Your task to perform on an android device: check storage Image 0: 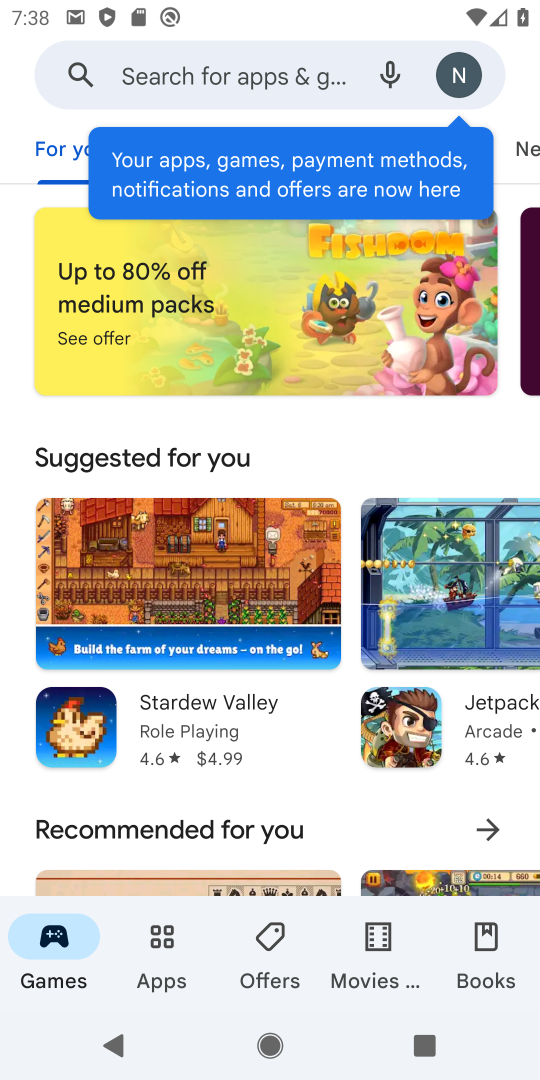
Step 0: press home button
Your task to perform on an android device: check storage Image 1: 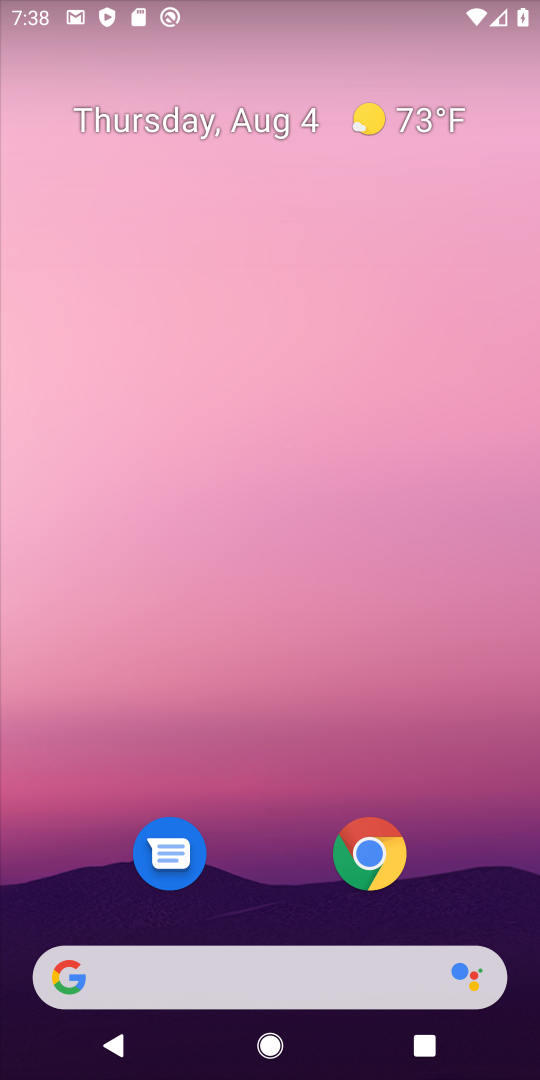
Step 1: drag from (310, 882) to (310, 497)
Your task to perform on an android device: check storage Image 2: 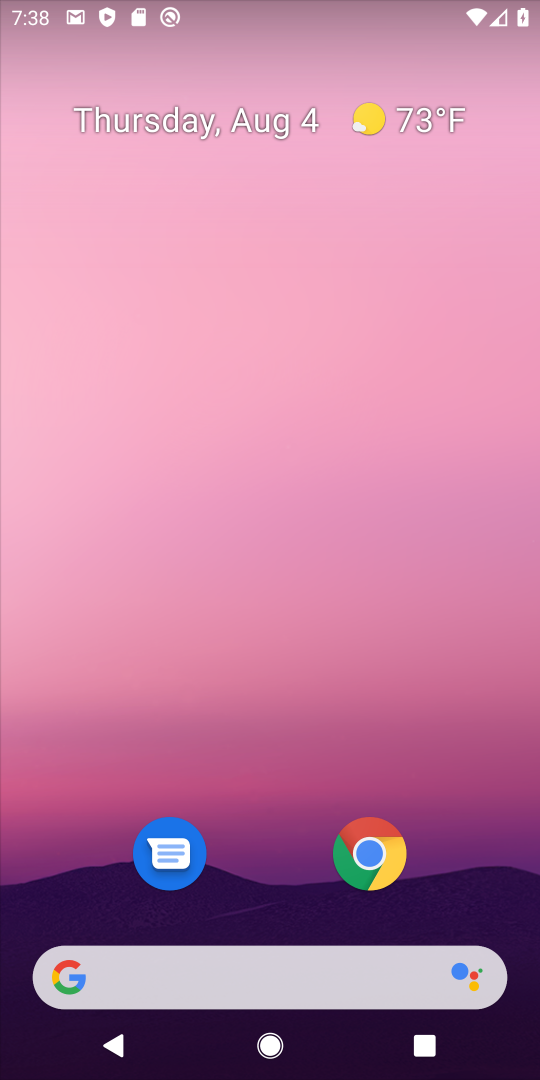
Step 2: drag from (252, 824) to (252, 166)
Your task to perform on an android device: check storage Image 3: 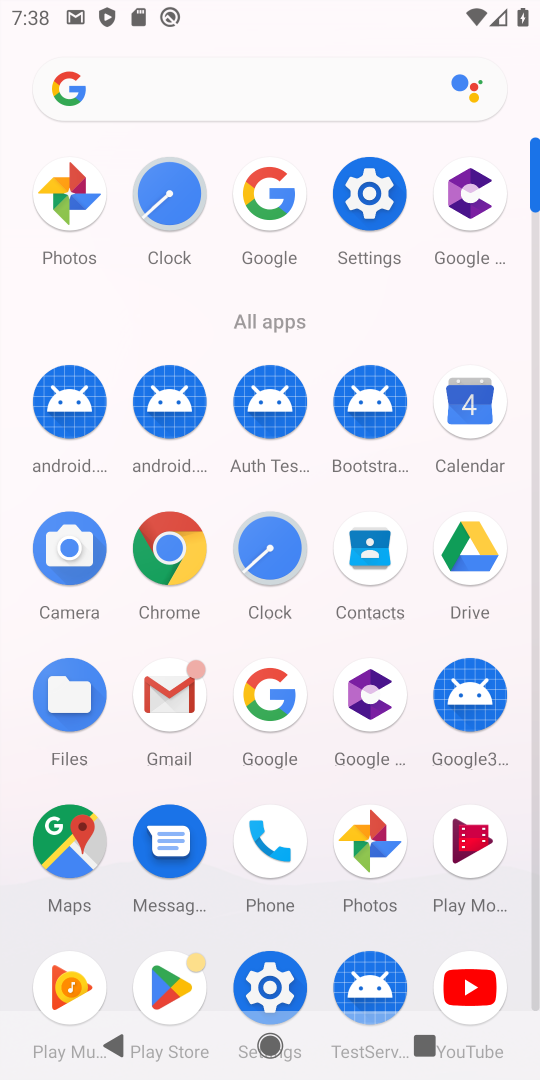
Step 3: click (348, 194)
Your task to perform on an android device: check storage Image 4: 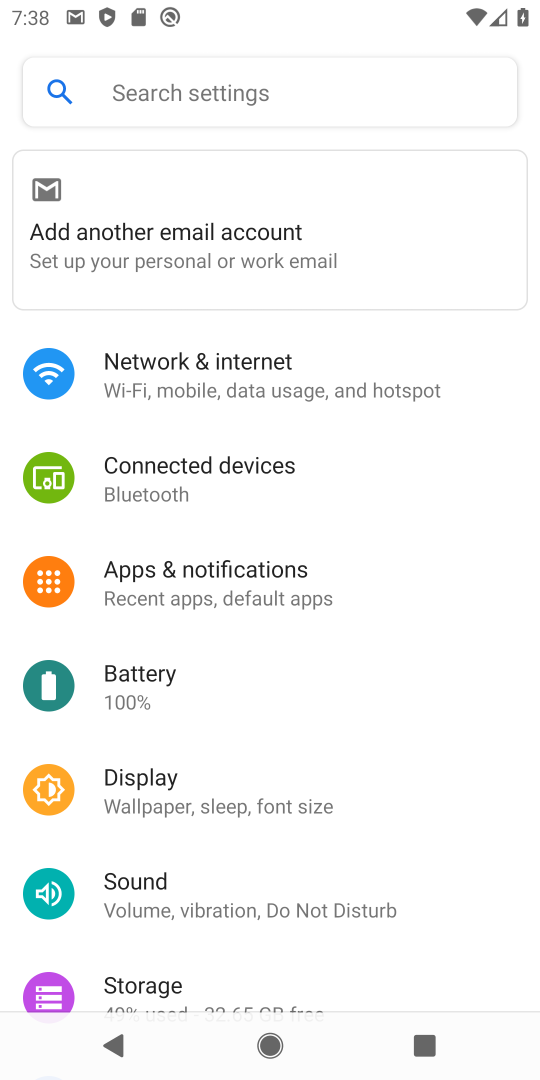
Step 4: click (150, 992)
Your task to perform on an android device: check storage Image 5: 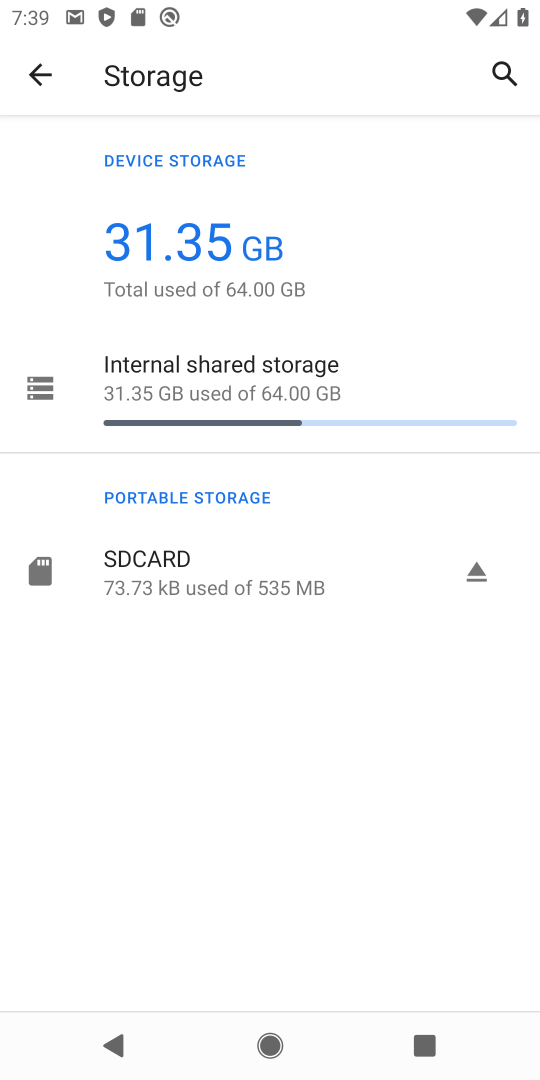
Step 5: task complete